Your task to perform on an android device: Open Chrome and go to settings Image 0: 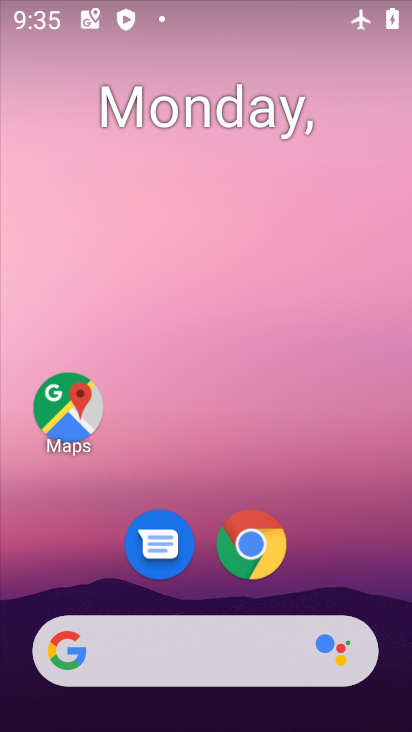
Step 0: click (263, 533)
Your task to perform on an android device: Open Chrome and go to settings Image 1: 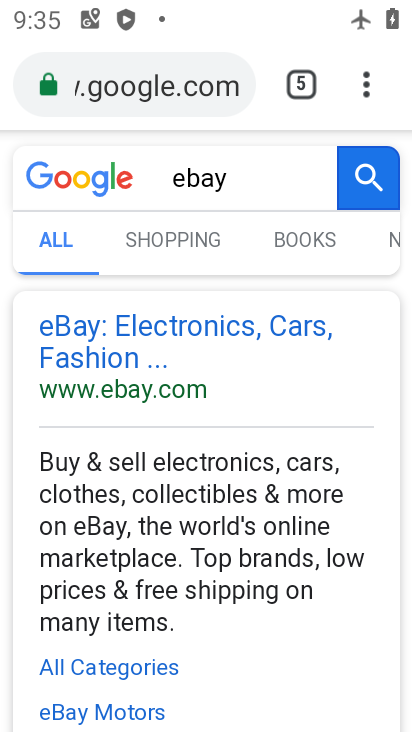
Step 1: click (368, 85)
Your task to perform on an android device: Open Chrome and go to settings Image 2: 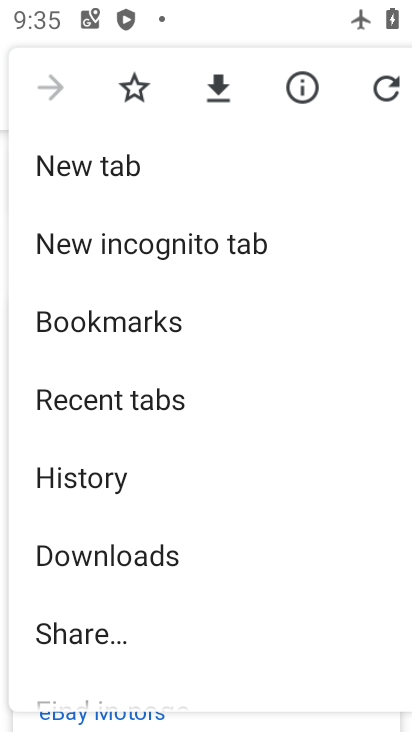
Step 2: drag from (191, 473) to (177, 135)
Your task to perform on an android device: Open Chrome and go to settings Image 3: 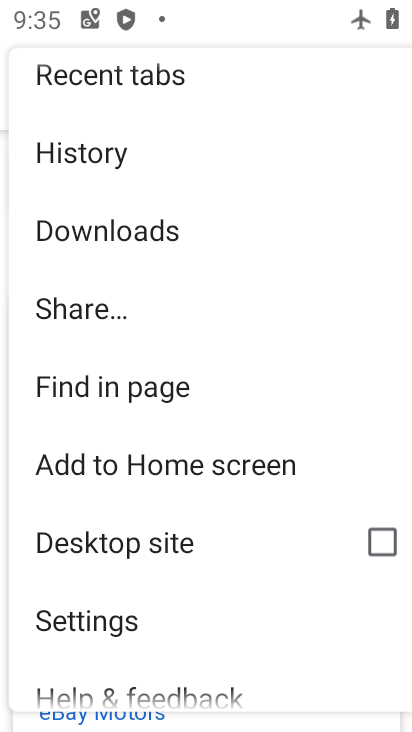
Step 3: drag from (233, 535) to (204, 268)
Your task to perform on an android device: Open Chrome and go to settings Image 4: 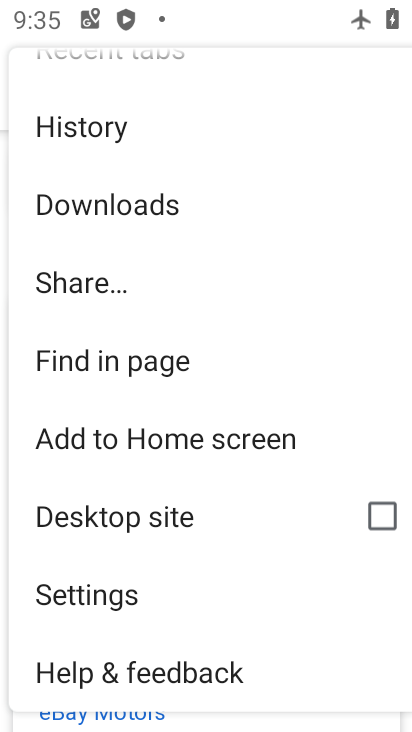
Step 4: click (92, 602)
Your task to perform on an android device: Open Chrome and go to settings Image 5: 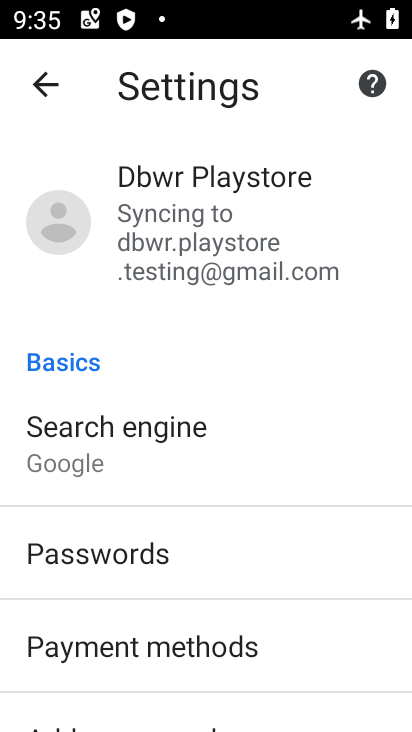
Step 5: task complete